Your task to perform on an android device: create a new album in the google photos Image 0: 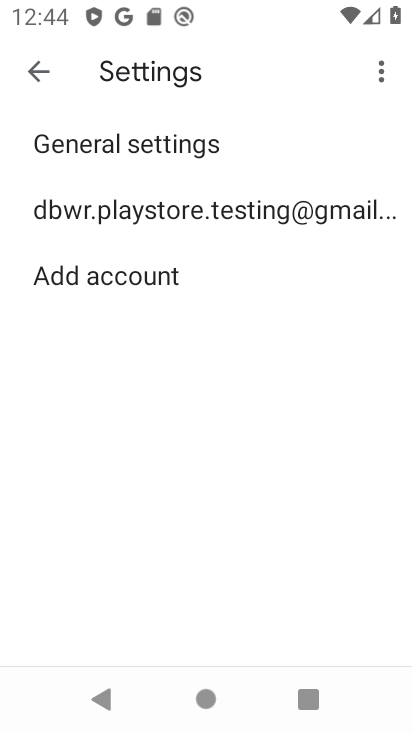
Step 0: press home button
Your task to perform on an android device: create a new album in the google photos Image 1: 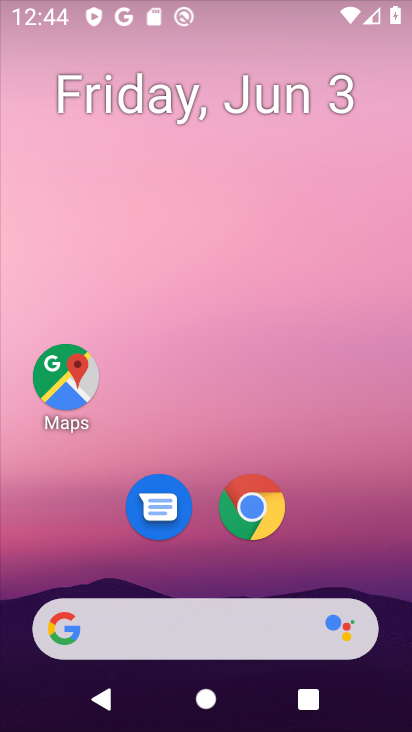
Step 1: drag from (353, 461) to (316, 77)
Your task to perform on an android device: create a new album in the google photos Image 2: 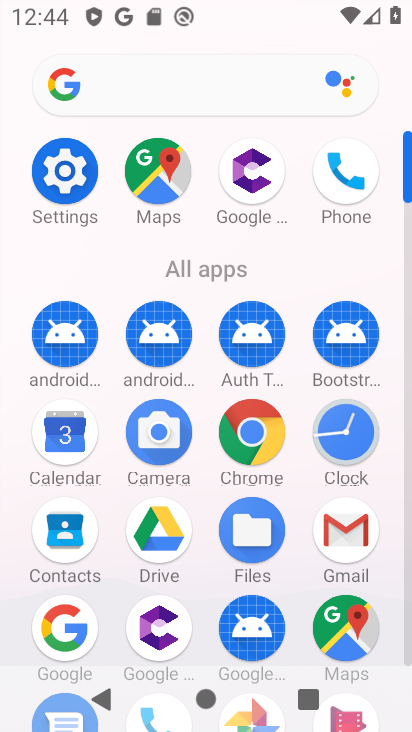
Step 2: drag from (199, 601) to (193, 295)
Your task to perform on an android device: create a new album in the google photos Image 3: 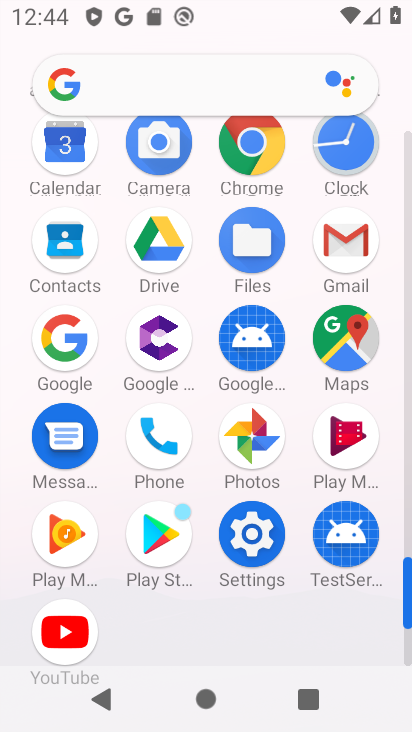
Step 3: click (275, 447)
Your task to perform on an android device: create a new album in the google photos Image 4: 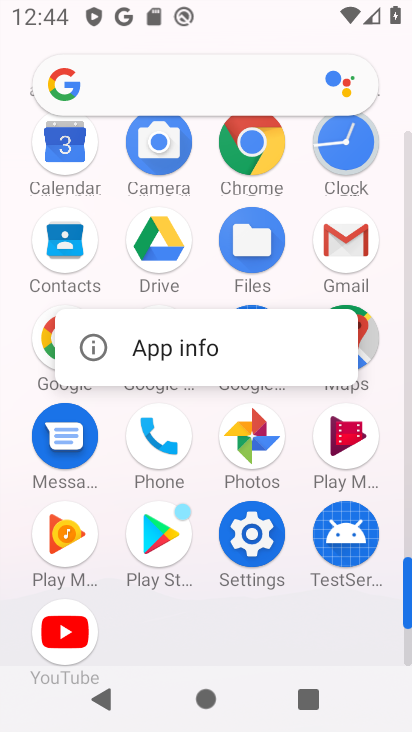
Step 4: click (262, 447)
Your task to perform on an android device: create a new album in the google photos Image 5: 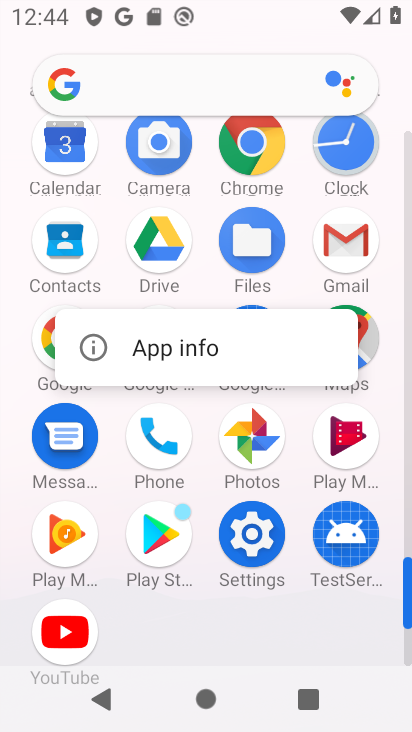
Step 5: click (256, 455)
Your task to perform on an android device: create a new album in the google photos Image 6: 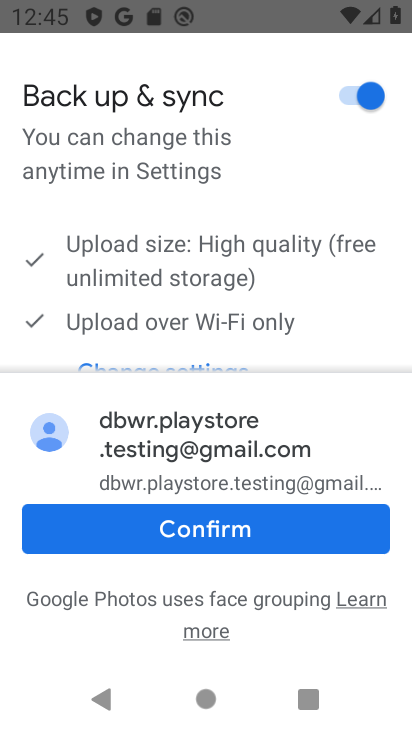
Step 6: click (267, 528)
Your task to perform on an android device: create a new album in the google photos Image 7: 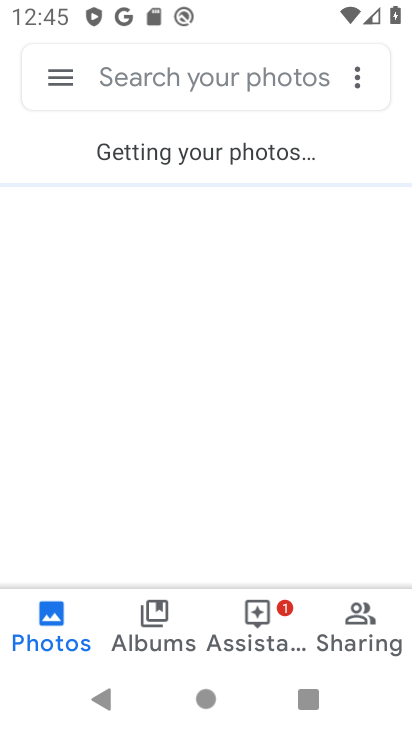
Step 7: click (147, 627)
Your task to perform on an android device: create a new album in the google photos Image 8: 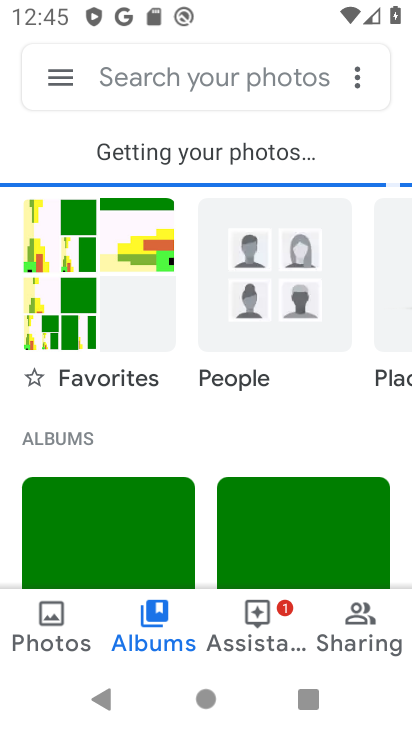
Step 8: task complete